Your task to perform on an android device: Go to internet settings Image 0: 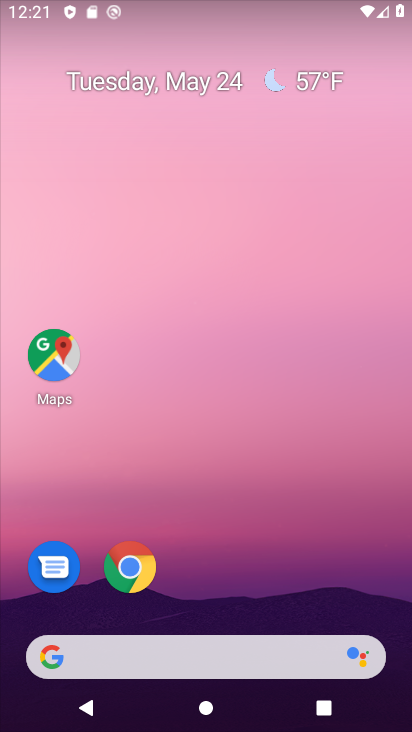
Step 0: drag from (267, 646) to (329, 60)
Your task to perform on an android device: Go to internet settings Image 1: 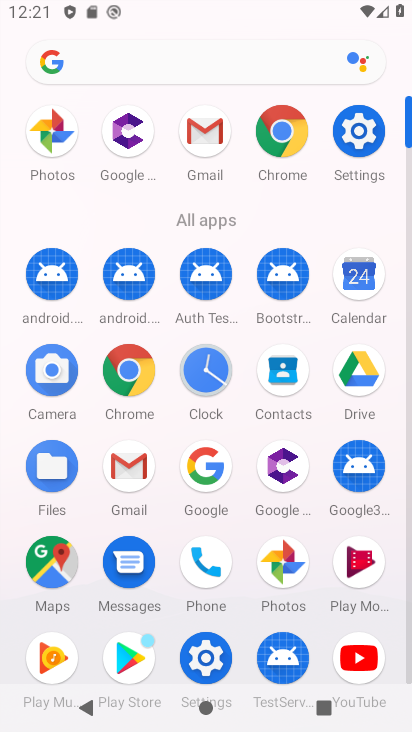
Step 1: click (357, 145)
Your task to perform on an android device: Go to internet settings Image 2: 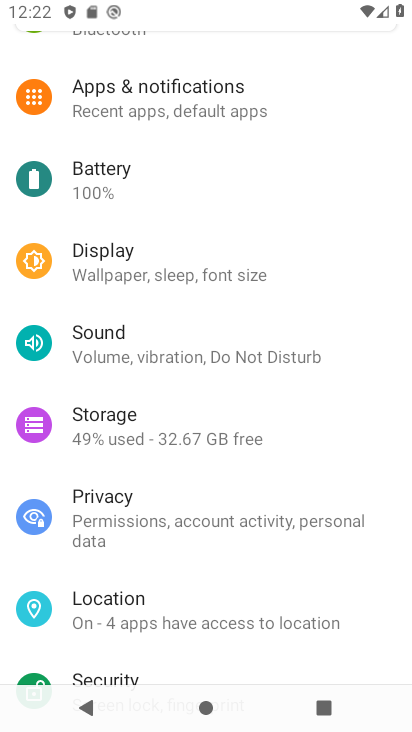
Step 2: drag from (151, 126) to (199, 512)
Your task to perform on an android device: Go to internet settings Image 3: 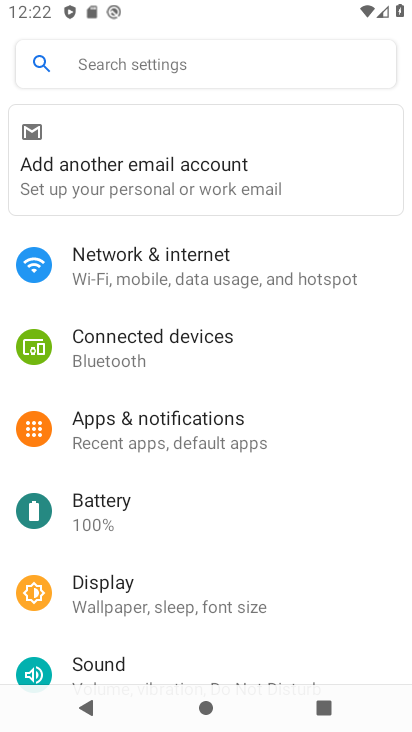
Step 3: click (186, 261)
Your task to perform on an android device: Go to internet settings Image 4: 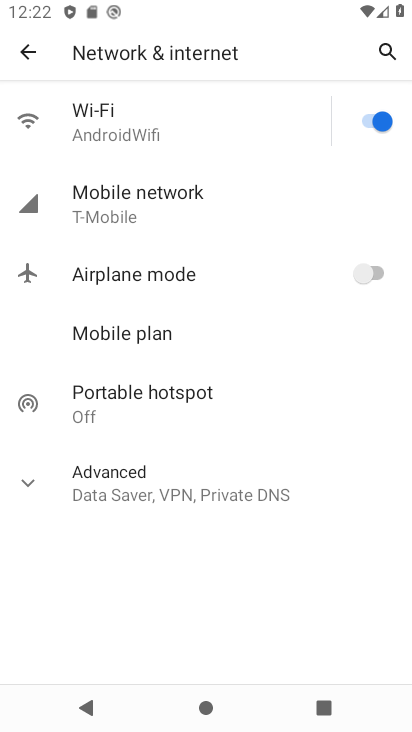
Step 4: task complete